Your task to perform on an android device: turn on priority inbox in the gmail app Image 0: 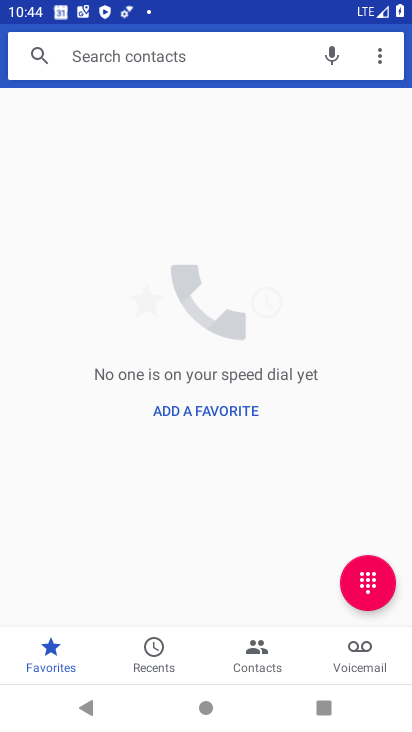
Step 0: press home button
Your task to perform on an android device: turn on priority inbox in the gmail app Image 1: 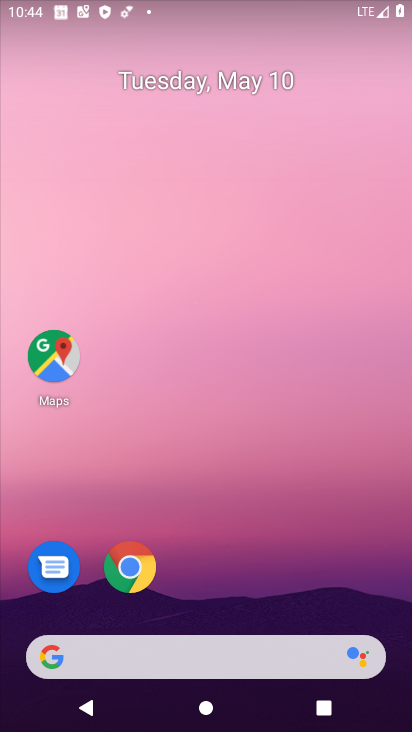
Step 1: drag from (18, 605) to (277, 230)
Your task to perform on an android device: turn on priority inbox in the gmail app Image 2: 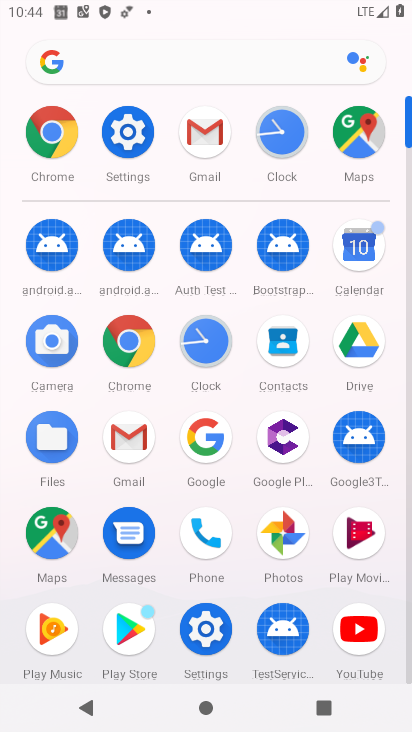
Step 2: click (140, 442)
Your task to perform on an android device: turn on priority inbox in the gmail app Image 3: 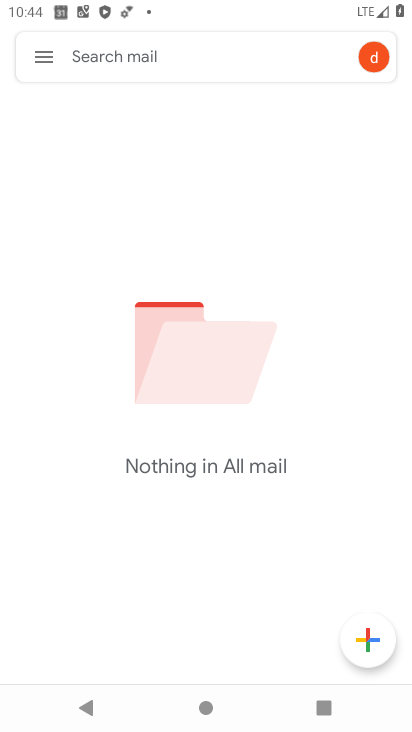
Step 3: click (44, 56)
Your task to perform on an android device: turn on priority inbox in the gmail app Image 4: 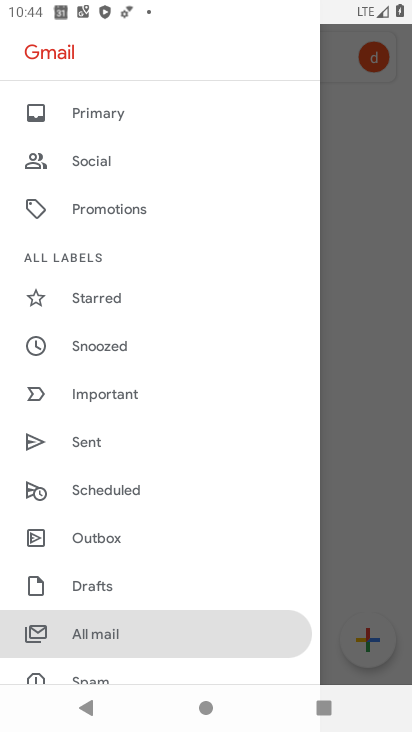
Step 4: drag from (70, 636) to (181, 165)
Your task to perform on an android device: turn on priority inbox in the gmail app Image 5: 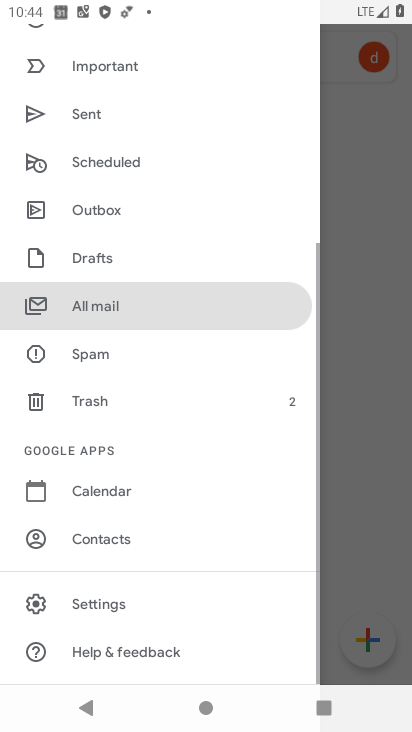
Step 5: click (122, 597)
Your task to perform on an android device: turn on priority inbox in the gmail app Image 6: 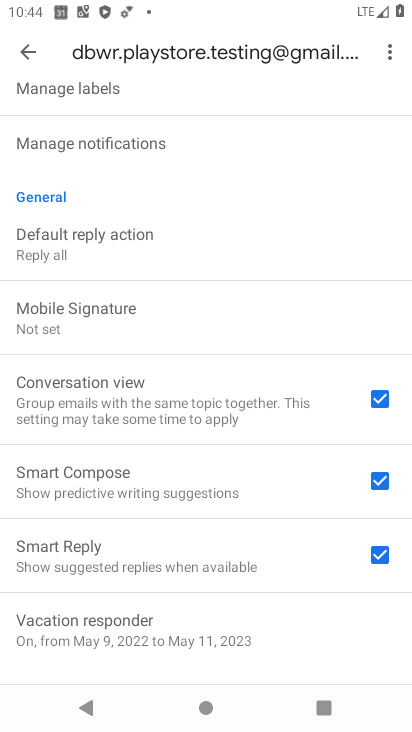
Step 6: drag from (176, 184) to (154, 561)
Your task to perform on an android device: turn on priority inbox in the gmail app Image 7: 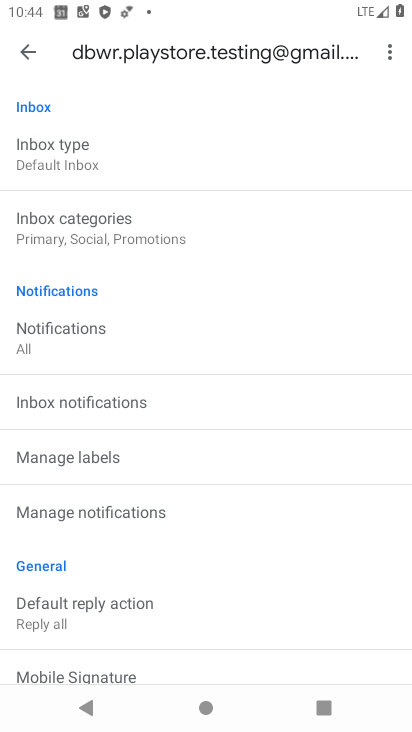
Step 7: click (148, 145)
Your task to perform on an android device: turn on priority inbox in the gmail app Image 8: 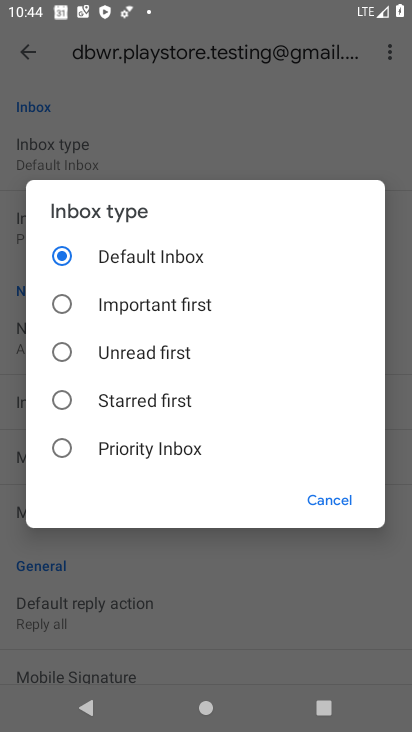
Step 8: click (107, 440)
Your task to perform on an android device: turn on priority inbox in the gmail app Image 9: 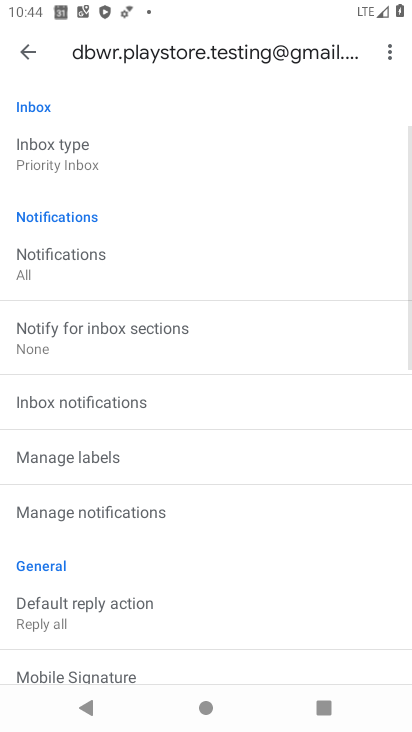
Step 9: task complete